Your task to perform on an android device: Go to wifi settings Image 0: 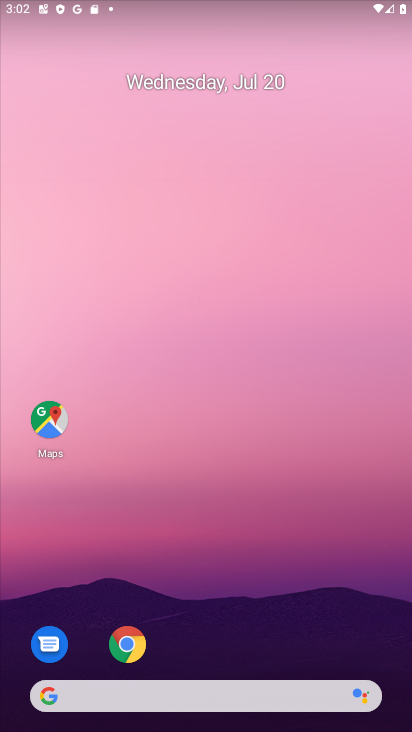
Step 0: drag from (203, 664) to (247, 43)
Your task to perform on an android device: Go to wifi settings Image 1: 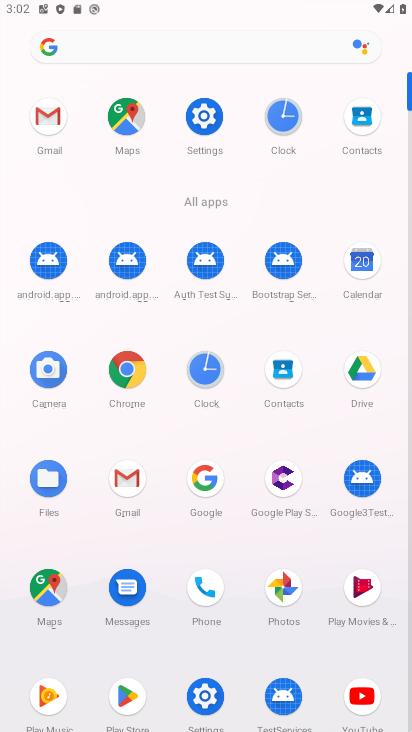
Step 1: click (208, 114)
Your task to perform on an android device: Go to wifi settings Image 2: 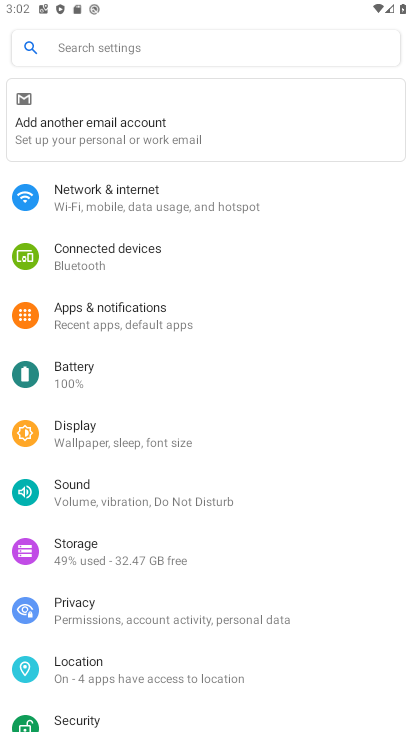
Step 2: click (155, 207)
Your task to perform on an android device: Go to wifi settings Image 3: 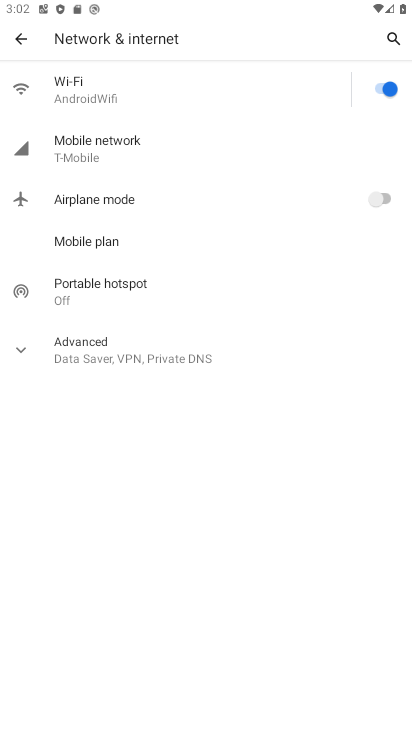
Step 3: click (124, 111)
Your task to perform on an android device: Go to wifi settings Image 4: 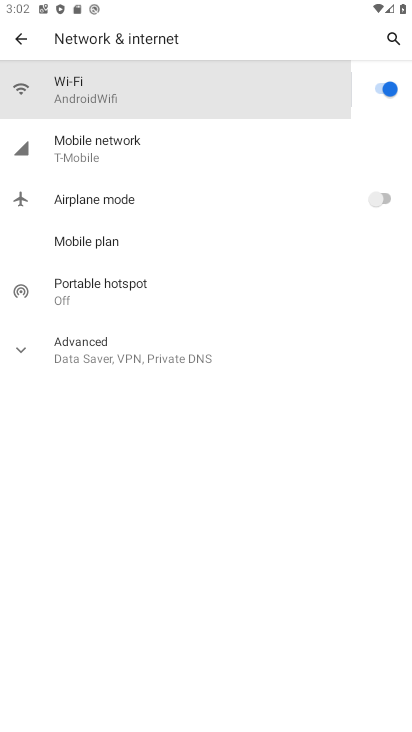
Step 4: task complete